Your task to perform on an android device: Go to Yahoo.com Image 0: 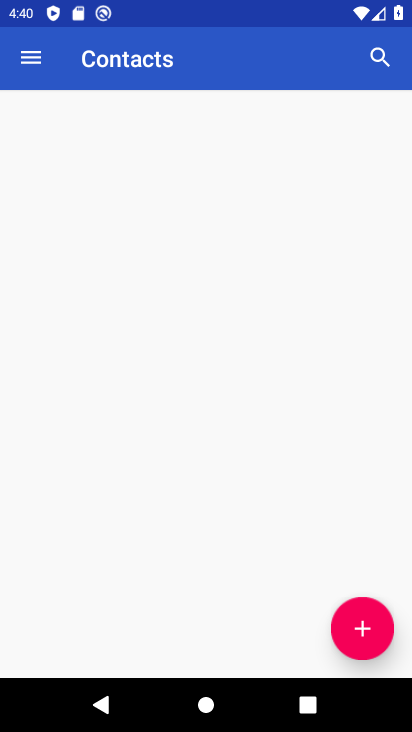
Step 0: click (134, 535)
Your task to perform on an android device: Go to Yahoo.com Image 1: 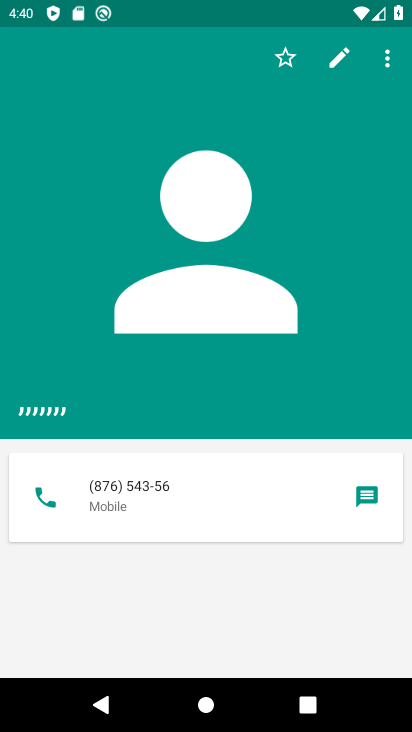
Step 1: press home button
Your task to perform on an android device: Go to Yahoo.com Image 2: 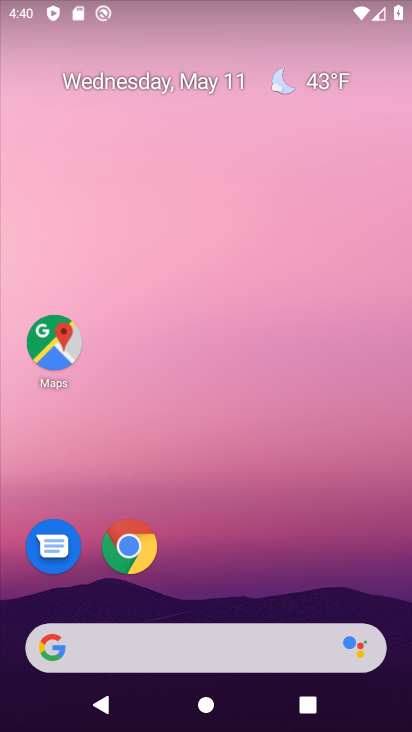
Step 2: click (127, 543)
Your task to perform on an android device: Go to Yahoo.com Image 3: 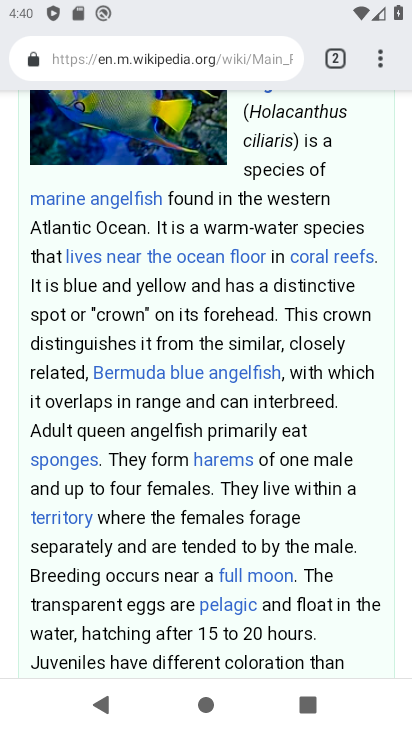
Step 3: click (342, 48)
Your task to perform on an android device: Go to Yahoo.com Image 4: 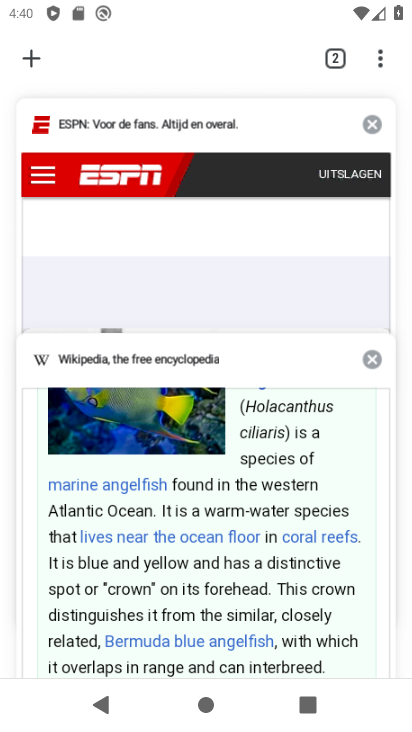
Step 4: click (28, 59)
Your task to perform on an android device: Go to Yahoo.com Image 5: 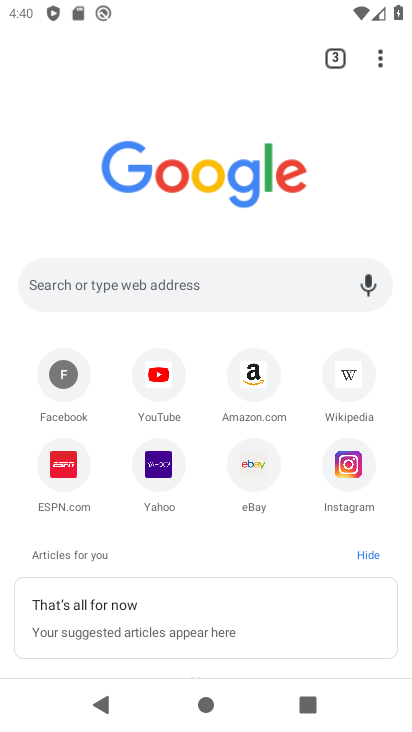
Step 5: click (177, 464)
Your task to perform on an android device: Go to Yahoo.com Image 6: 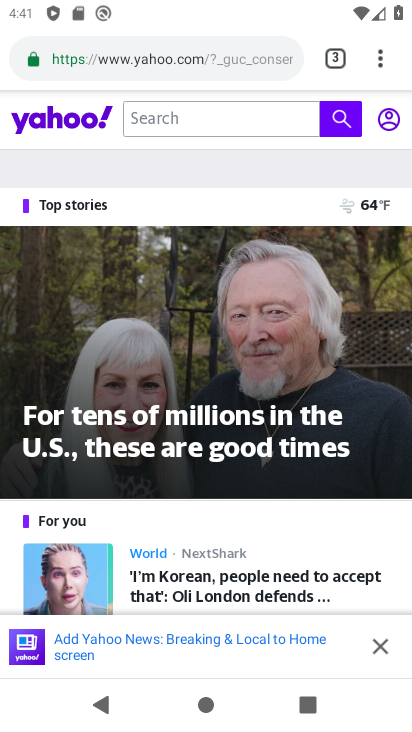
Step 6: task complete